Your task to perform on an android device: Go to Amazon Image 0: 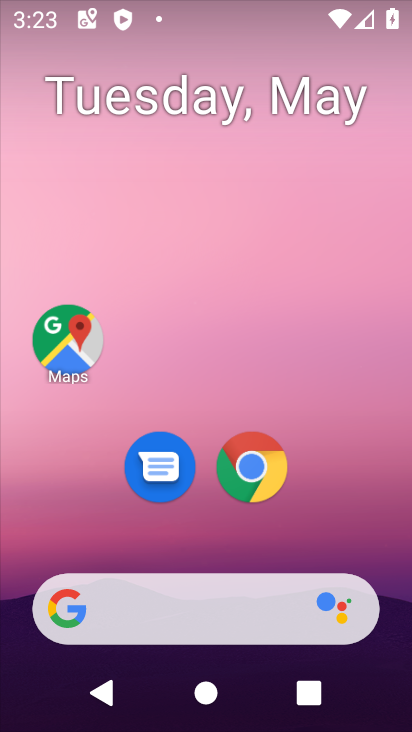
Step 0: click (199, 613)
Your task to perform on an android device: Go to Amazon Image 1: 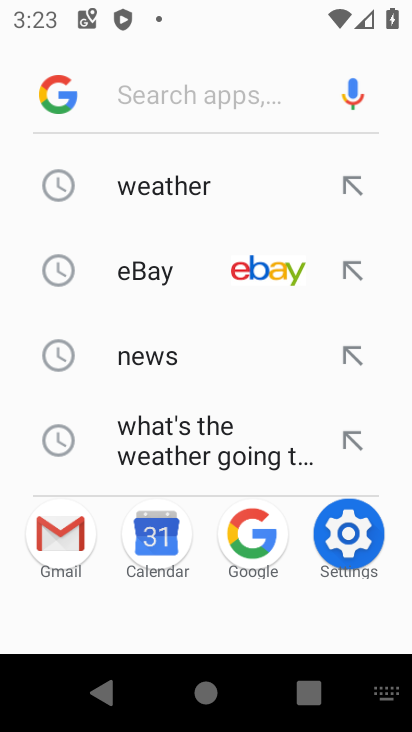
Step 1: type "Amazon"
Your task to perform on an android device: Go to Amazon Image 2: 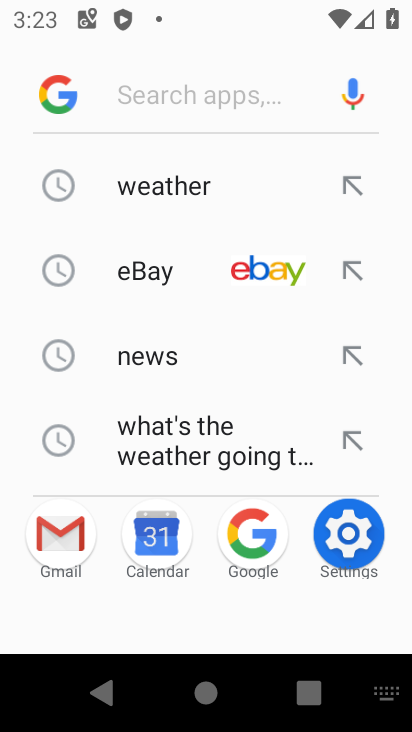
Step 2: click (164, 97)
Your task to perform on an android device: Go to Amazon Image 3: 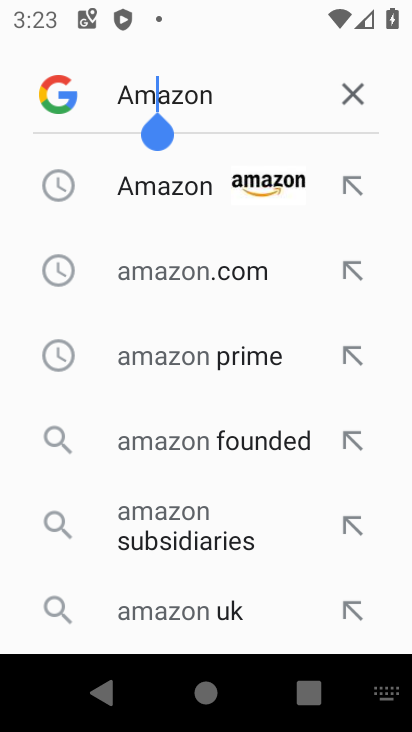
Step 3: click (172, 193)
Your task to perform on an android device: Go to Amazon Image 4: 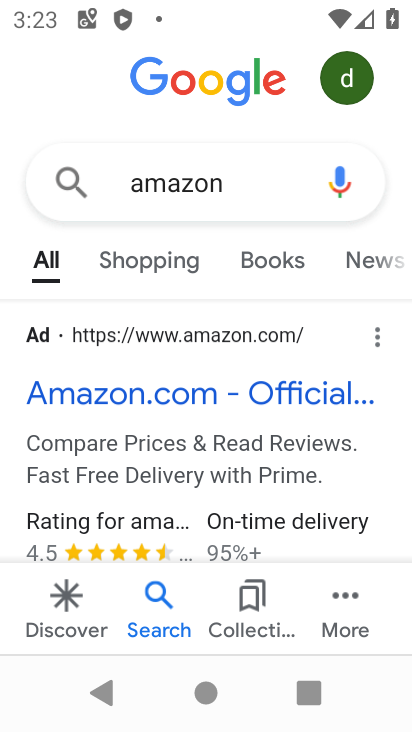
Step 4: drag from (299, 496) to (266, 63)
Your task to perform on an android device: Go to Amazon Image 5: 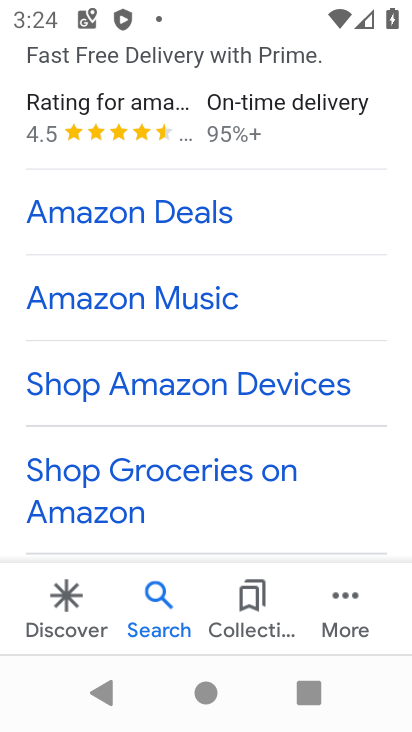
Step 5: drag from (253, 521) to (226, 176)
Your task to perform on an android device: Go to Amazon Image 6: 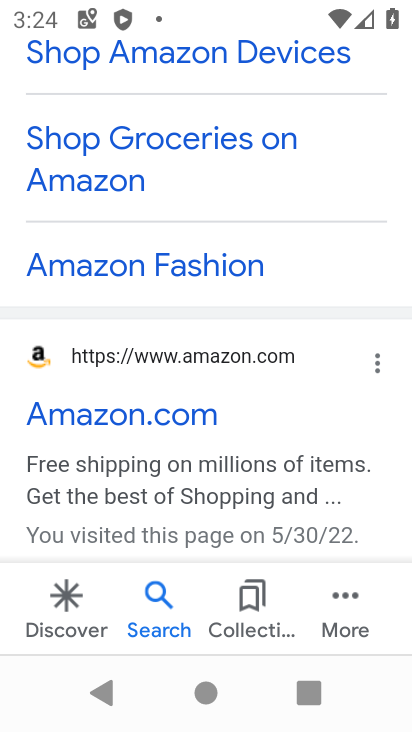
Step 6: click (113, 422)
Your task to perform on an android device: Go to Amazon Image 7: 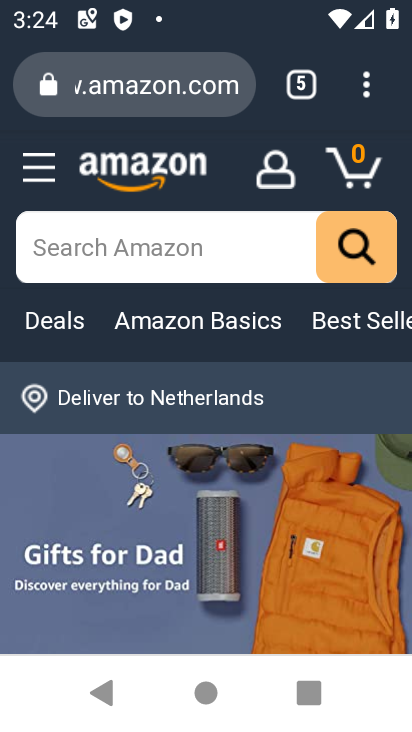
Step 7: task complete